Your task to perform on an android device: Open calendar and show me the third week of next month Image 0: 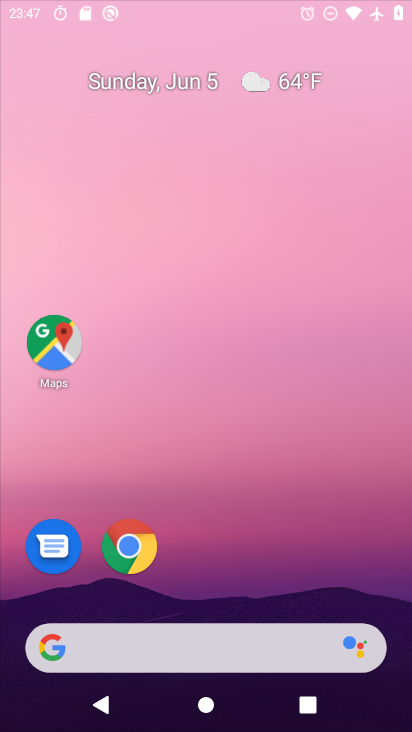
Step 0: click (296, 138)
Your task to perform on an android device: Open calendar and show me the third week of next month Image 1: 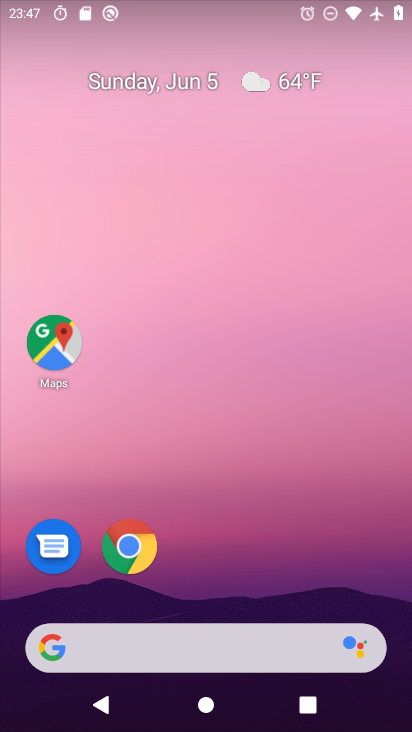
Step 1: drag from (201, 613) to (223, 239)
Your task to perform on an android device: Open calendar and show me the third week of next month Image 2: 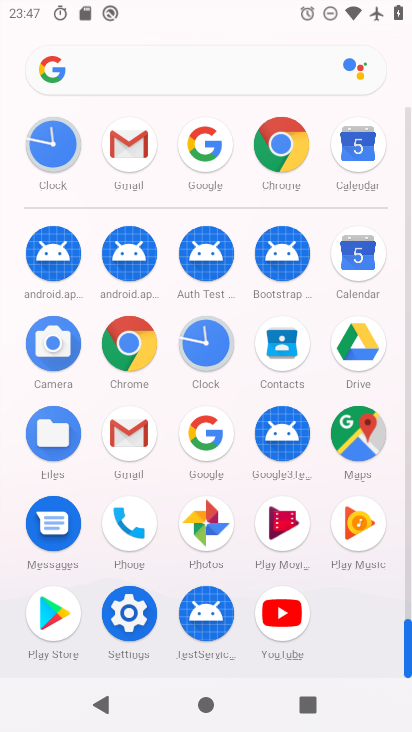
Step 2: click (360, 253)
Your task to perform on an android device: Open calendar and show me the third week of next month Image 3: 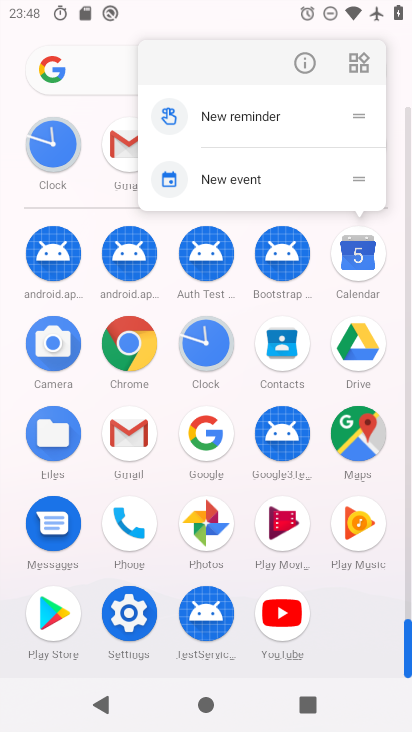
Step 3: click (300, 60)
Your task to perform on an android device: Open calendar and show me the third week of next month Image 4: 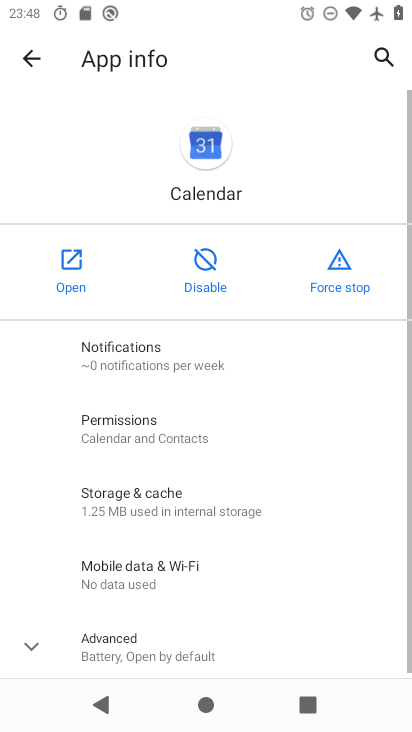
Step 4: click (65, 264)
Your task to perform on an android device: Open calendar and show me the third week of next month Image 5: 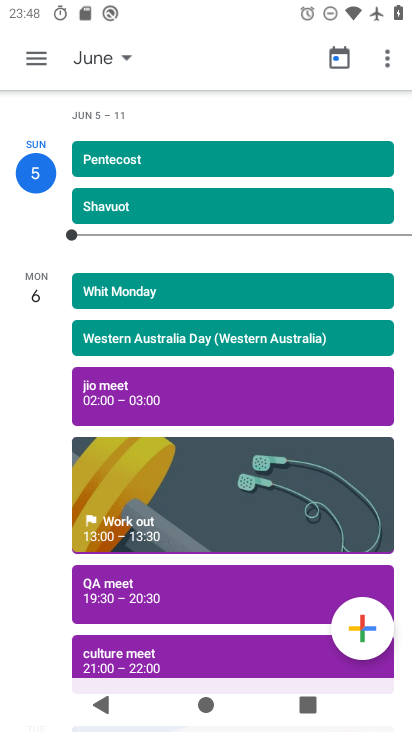
Step 5: click (115, 68)
Your task to perform on an android device: Open calendar and show me the third week of next month Image 6: 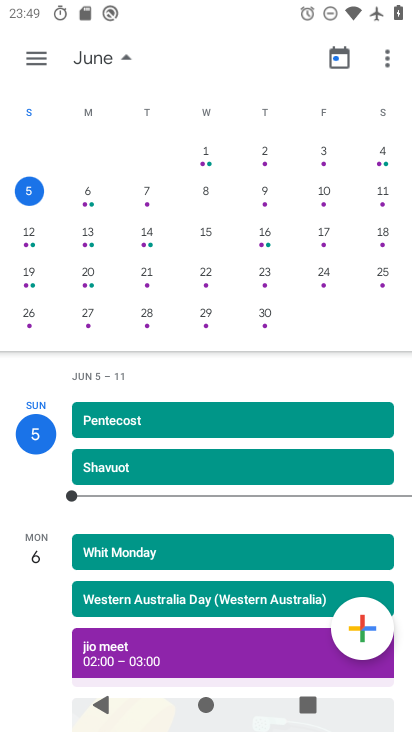
Step 6: click (142, 200)
Your task to perform on an android device: Open calendar and show me the third week of next month Image 7: 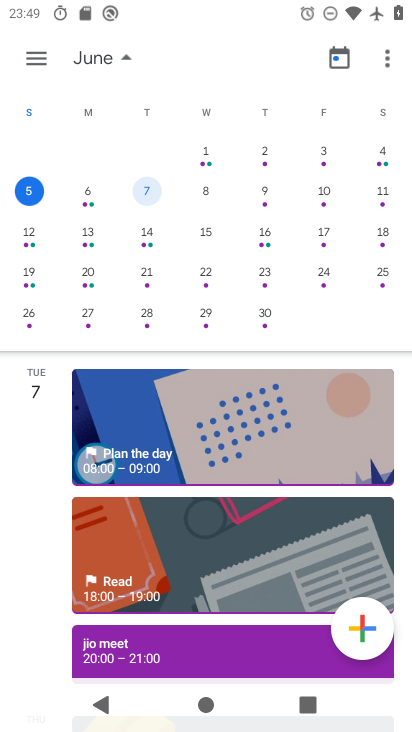
Step 7: drag from (270, 447) to (346, 187)
Your task to perform on an android device: Open calendar and show me the third week of next month Image 8: 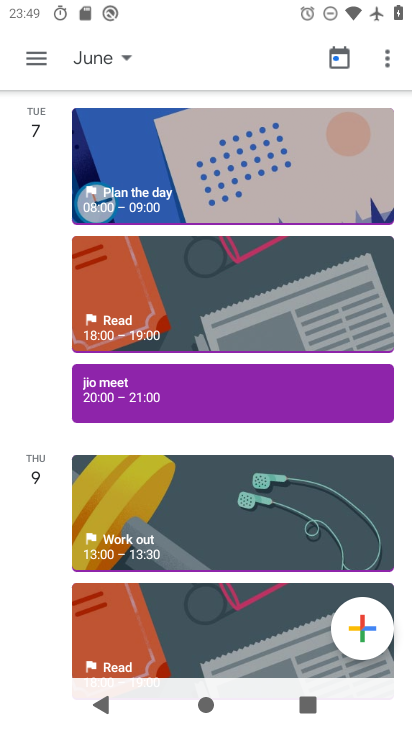
Step 8: drag from (215, 329) to (277, 595)
Your task to perform on an android device: Open calendar and show me the third week of next month Image 9: 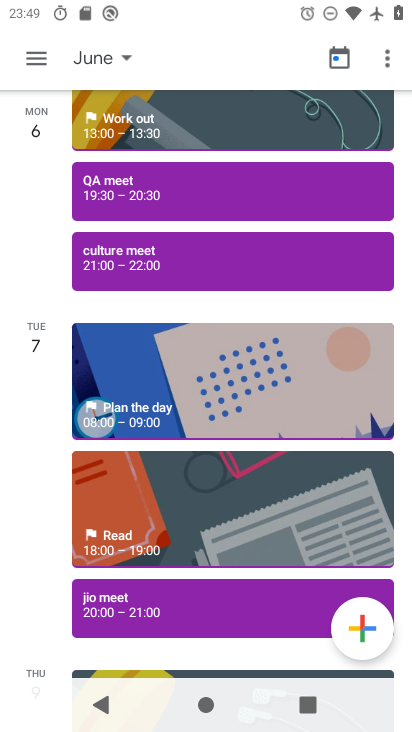
Step 9: click (108, 64)
Your task to perform on an android device: Open calendar and show me the third week of next month Image 10: 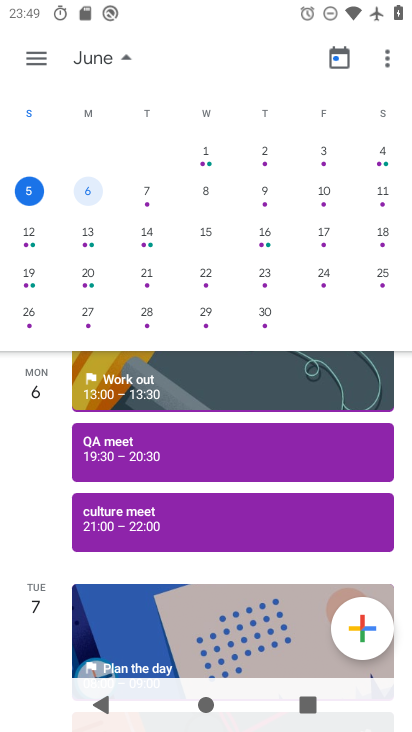
Step 10: drag from (391, 236) to (25, 280)
Your task to perform on an android device: Open calendar and show me the third week of next month Image 11: 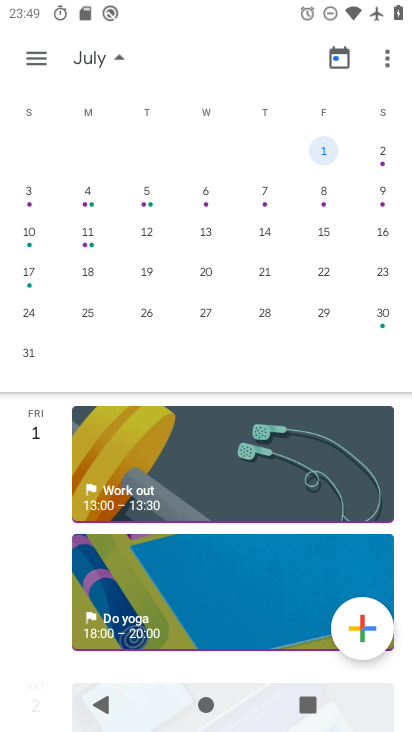
Step 11: click (265, 235)
Your task to perform on an android device: Open calendar and show me the third week of next month Image 12: 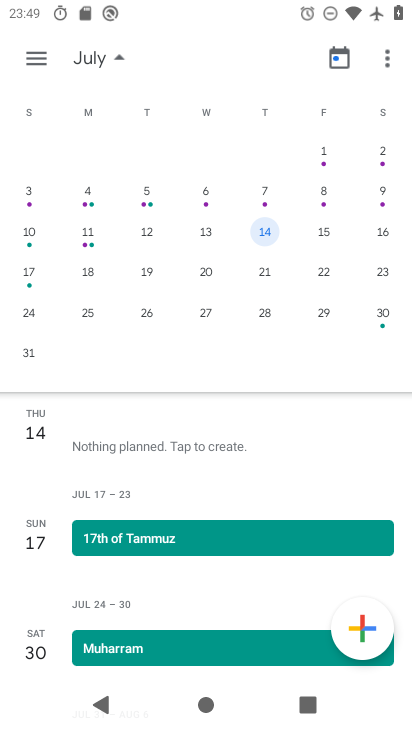
Step 12: task complete